Your task to perform on an android device: Open Yahoo.com Image 0: 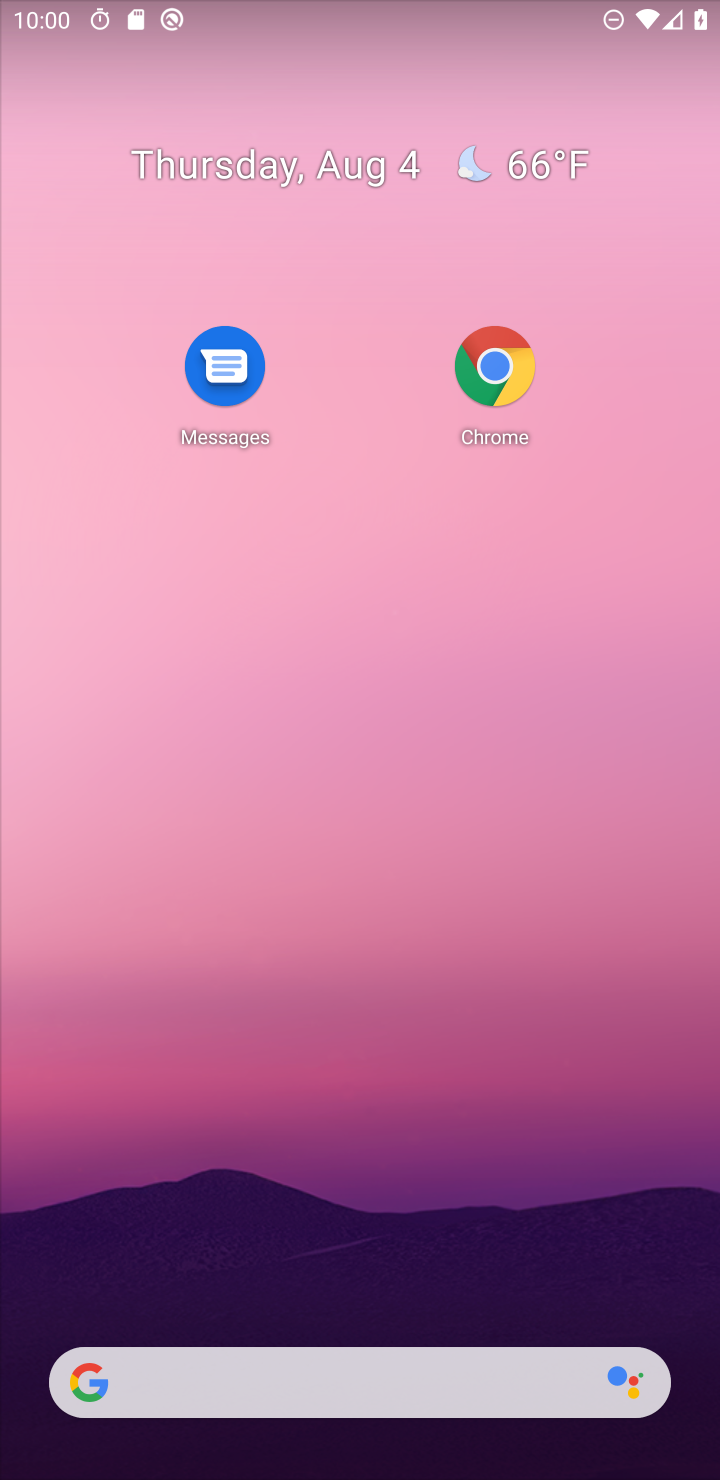
Step 0: press home button
Your task to perform on an android device: Open Yahoo.com Image 1: 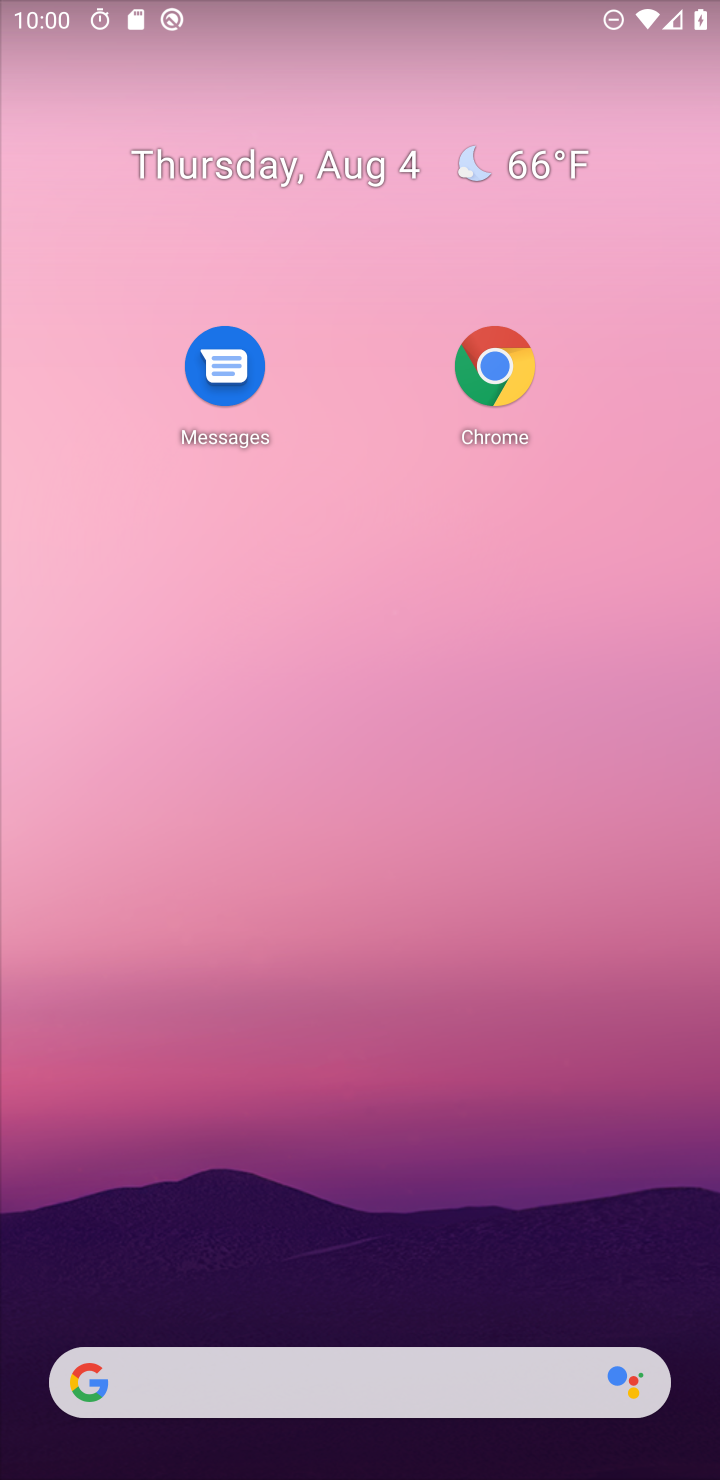
Step 1: drag from (469, 1275) to (656, 331)
Your task to perform on an android device: Open Yahoo.com Image 2: 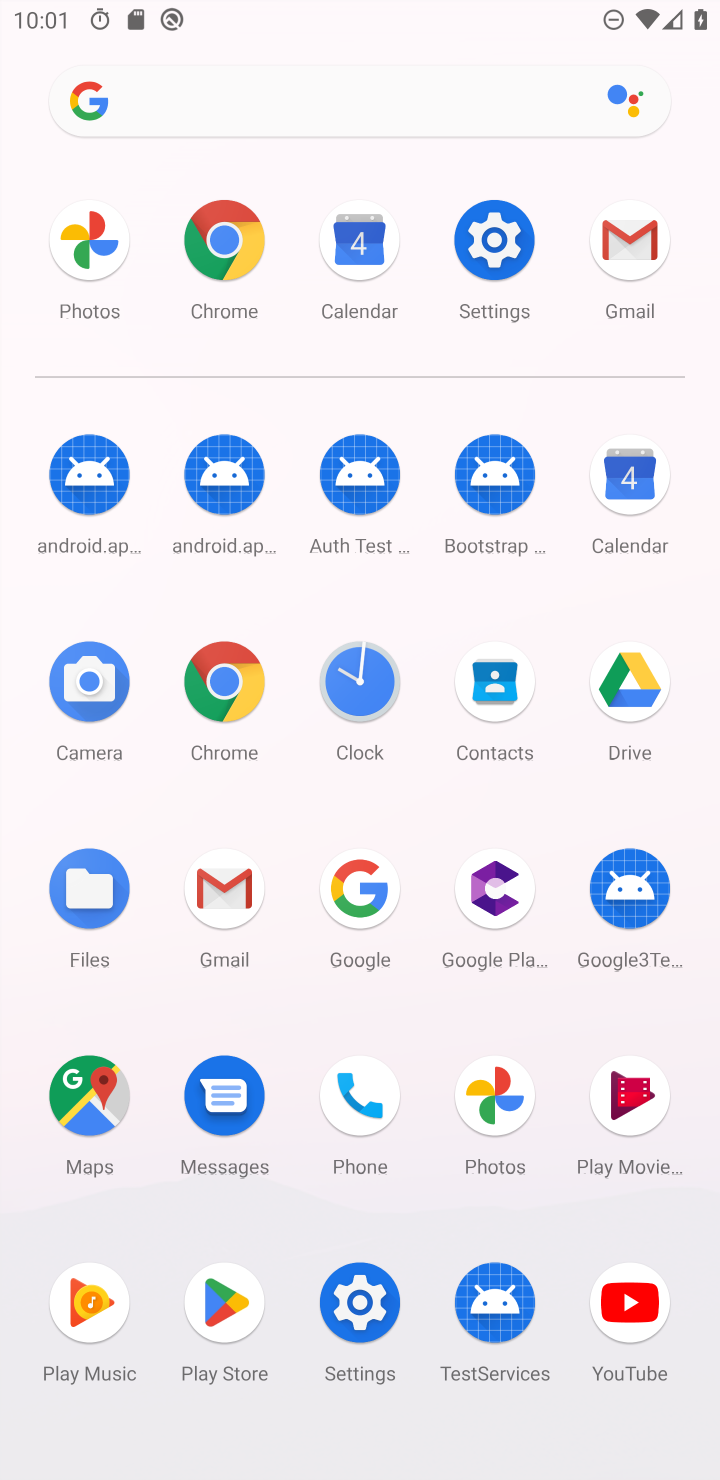
Step 2: click (247, 238)
Your task to perform on an android device: Open Yahoo.com Image 3: 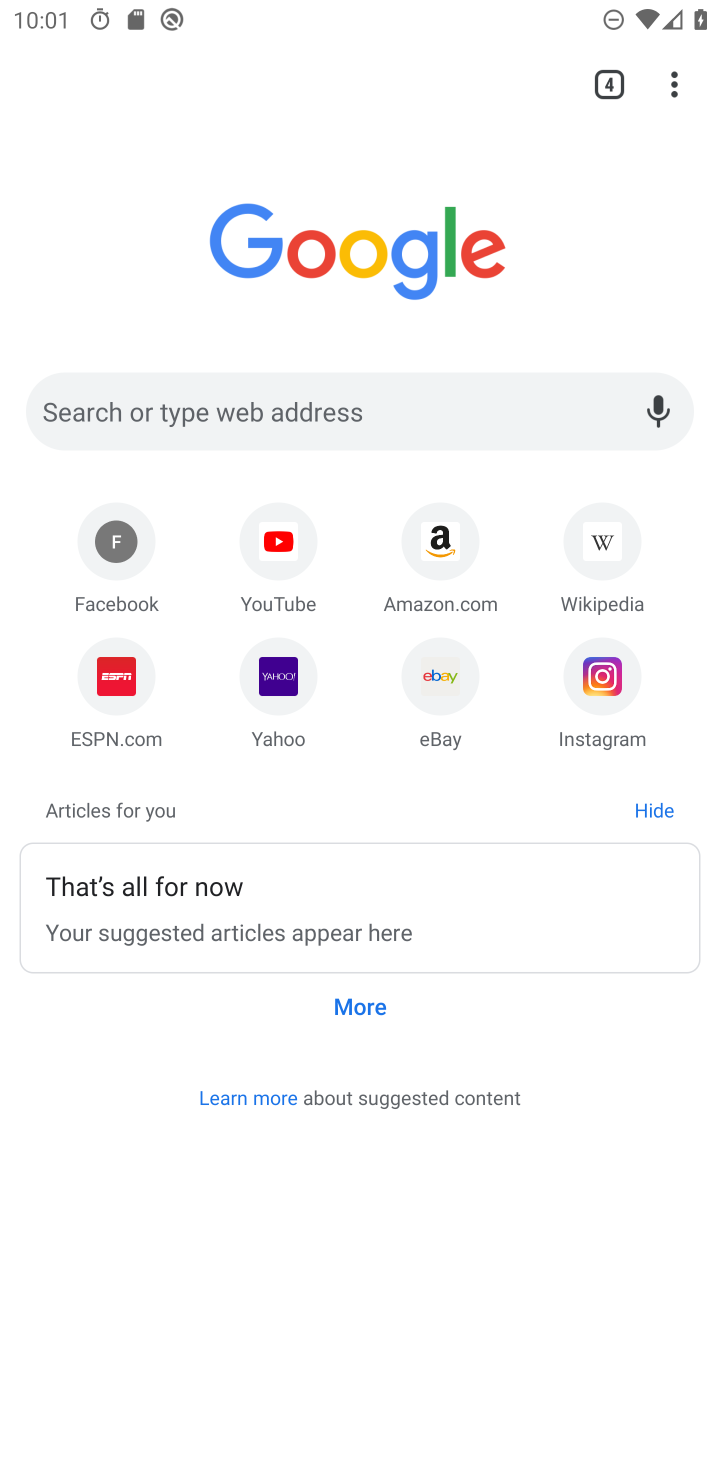
Step 3: click (263, 689)
Your task to perform on an android device: Open Yahoo.com Image 4: 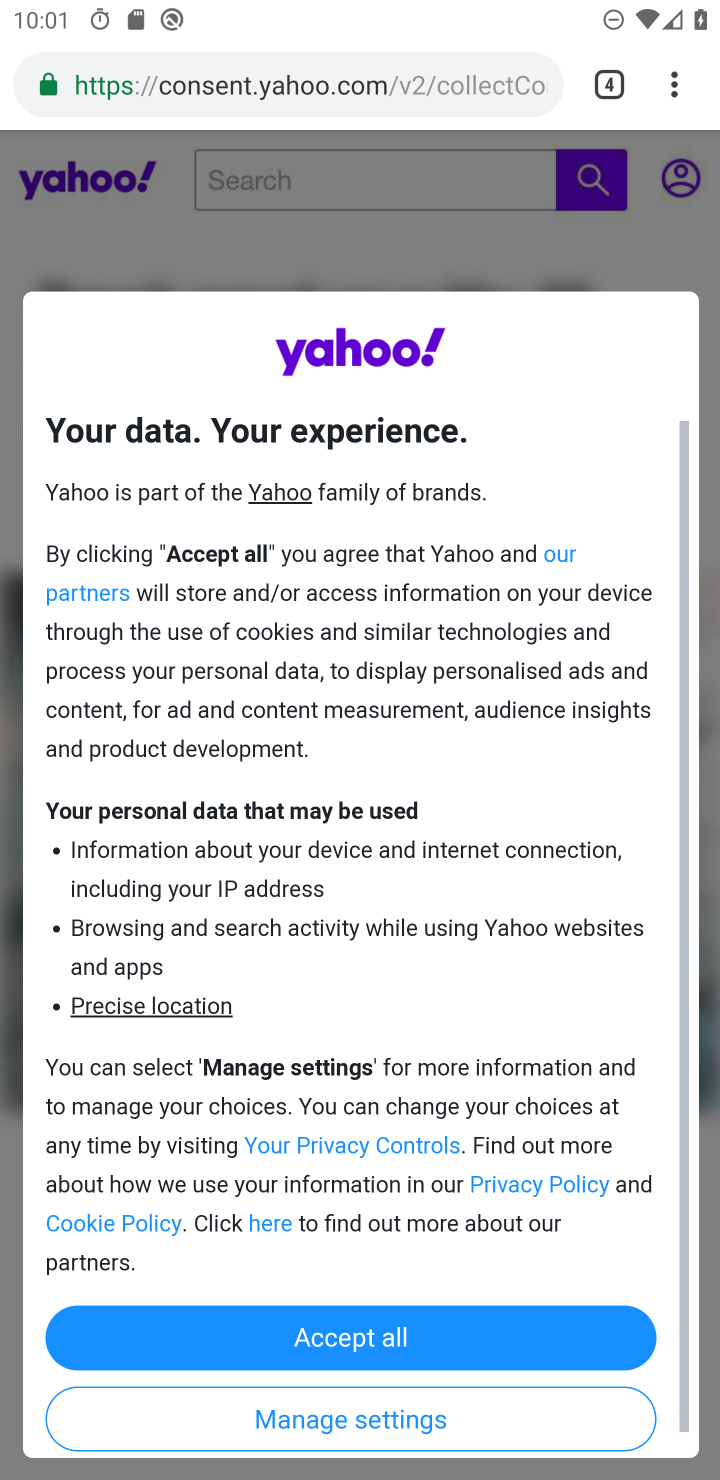
Step 4: click (428, 1330)
Your task to perform on an android device: Open Yahoo.com Image 5: 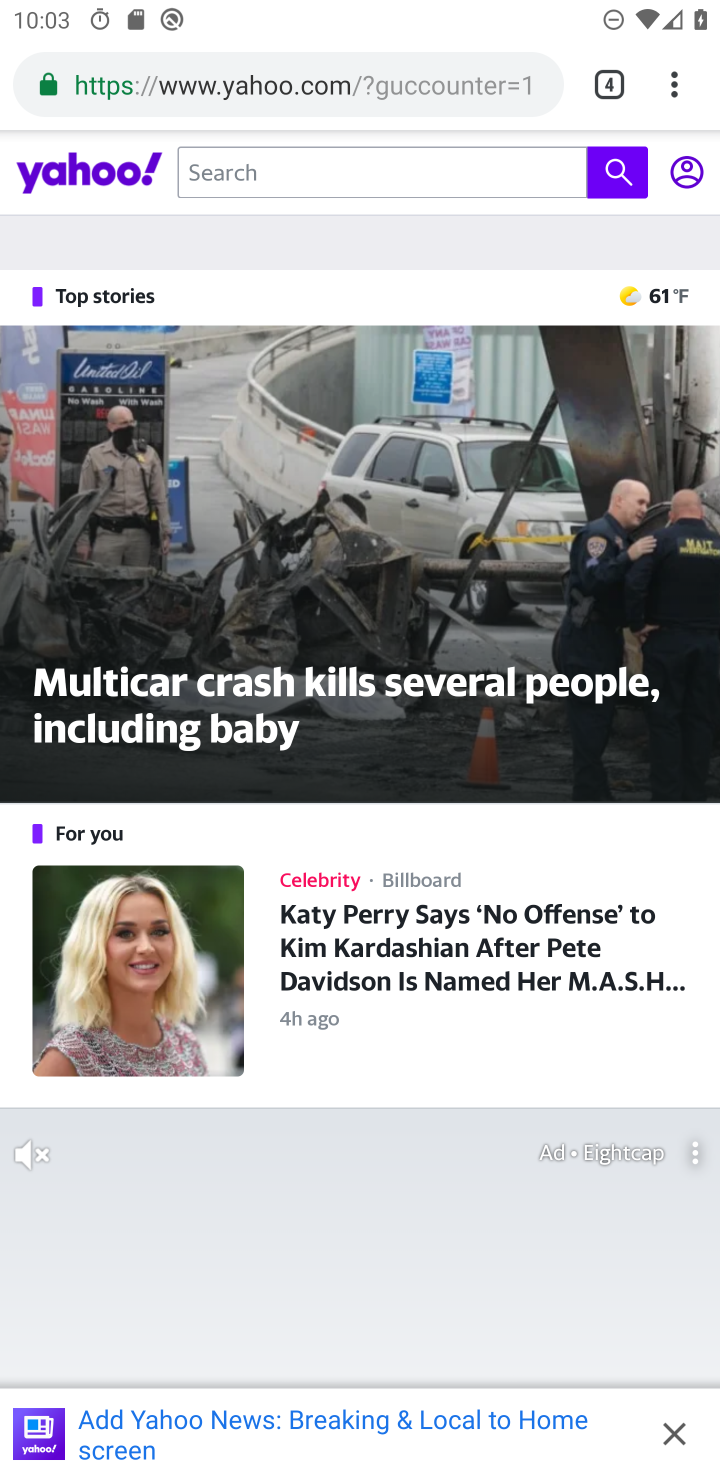
Step 5: task complete